Your task to perform on an android device: Do I have any events today? Image 0: 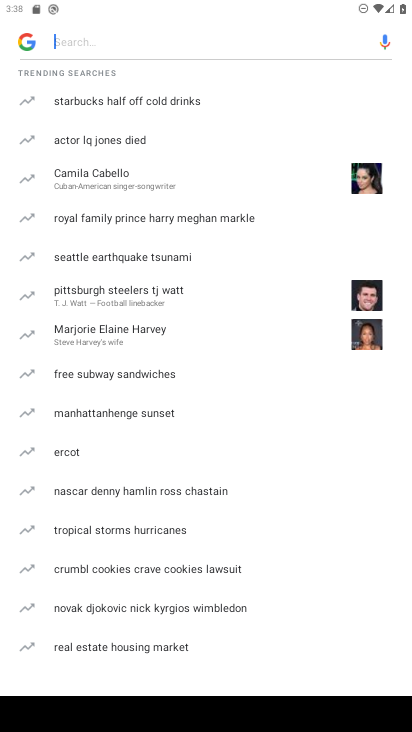
Step 0: press home button
Your task to perform on an android device: Do I have any events today? Image 1: 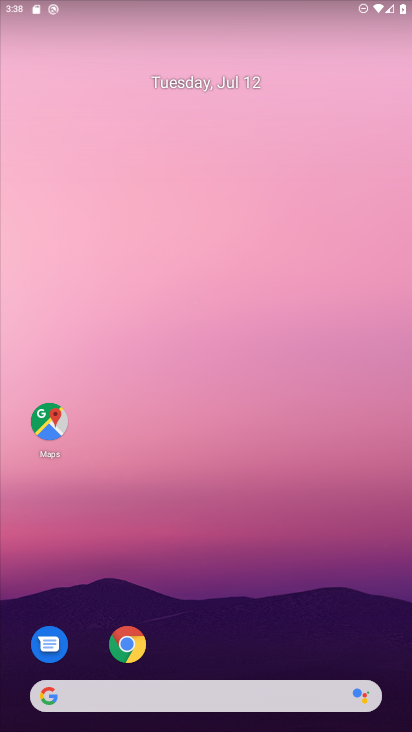
Step 1: drag from (283, 585) to (245, 9)
Your task to perform on an android device: Do I have any events today? Image 2: 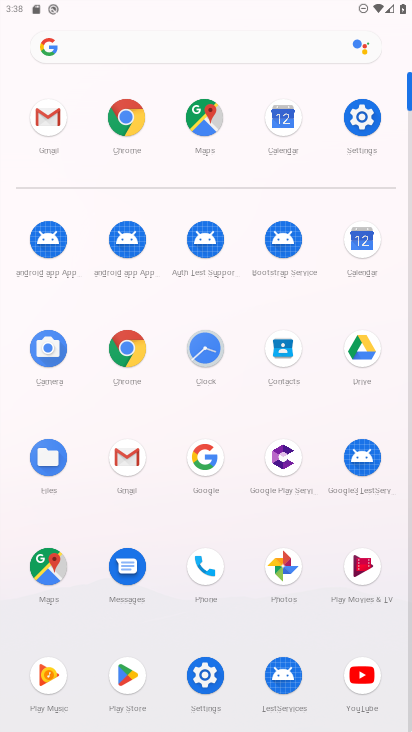
Step 2: click (368, 238)
Your task to perform on an android device: Do I have any events today? Image 3: 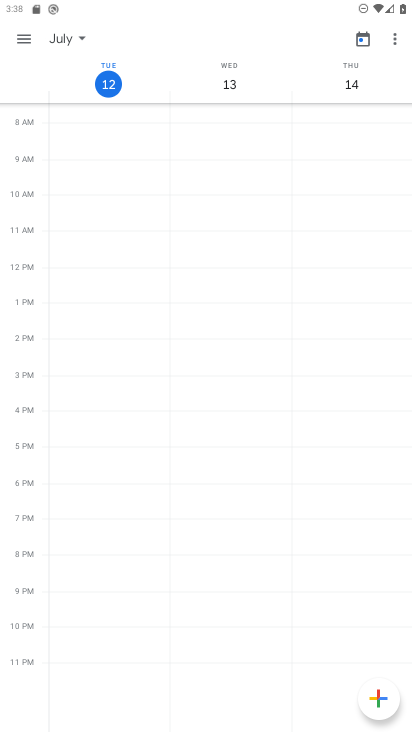
Step 3: task complete